Your task to perform on an android device: toggle sleep mode Image 0: 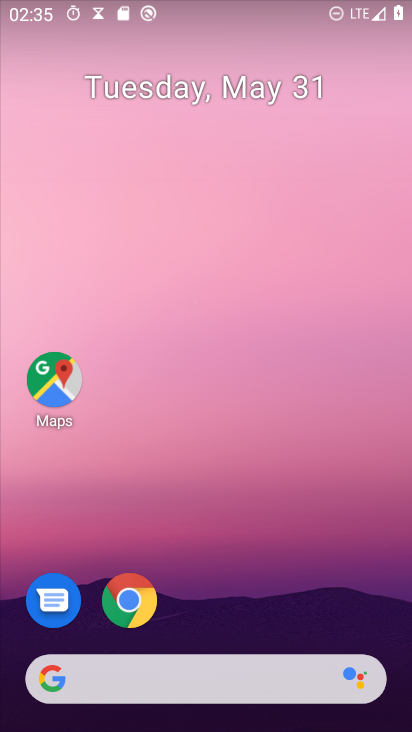
Step 0: drag from (223, 725) to (210, 57)
Your task to perform on an android device: toggle sleep mode Image 1: 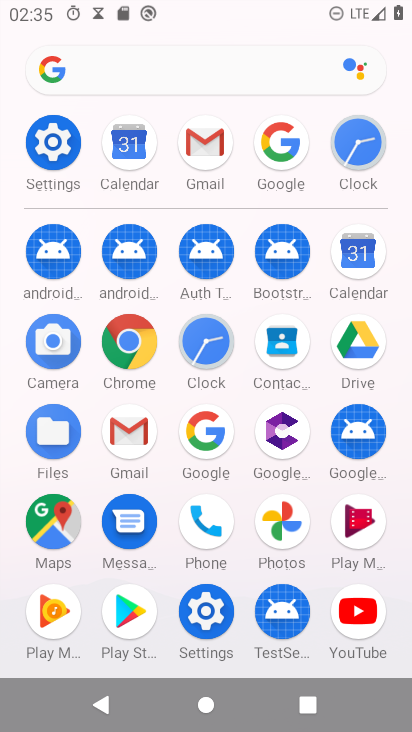
Step 1: click (43, 133)
Your task to perform on an android device: toggle sleep mode Image 2: 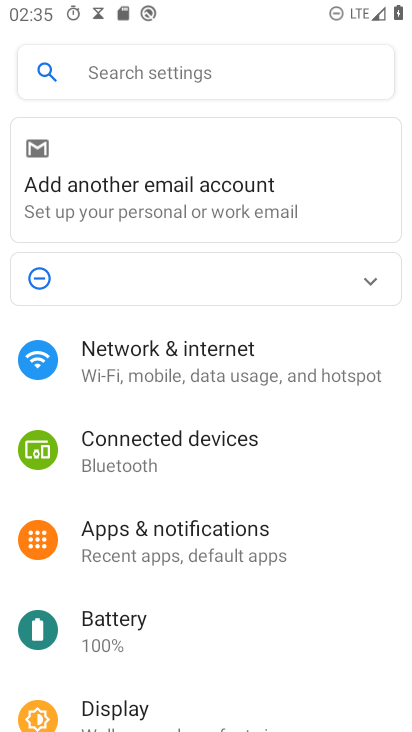
Step 2: task complete